Your task to perform on an android device: move an email to a new category in the gmail app Image 0: 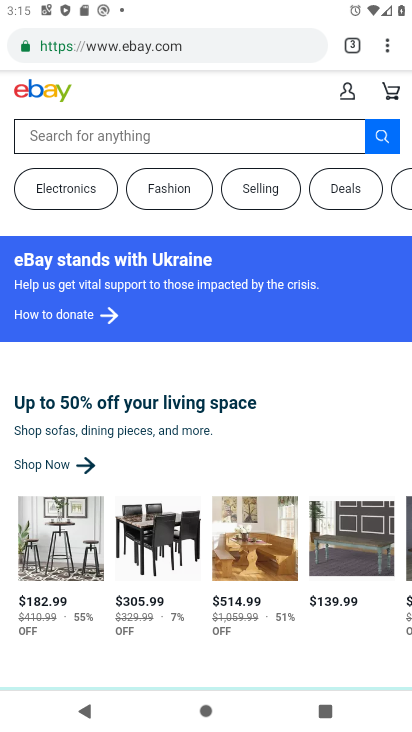
Step 0: press home button
Your task to perform on an android device: move an email to a new category in the gmail app Image 1: 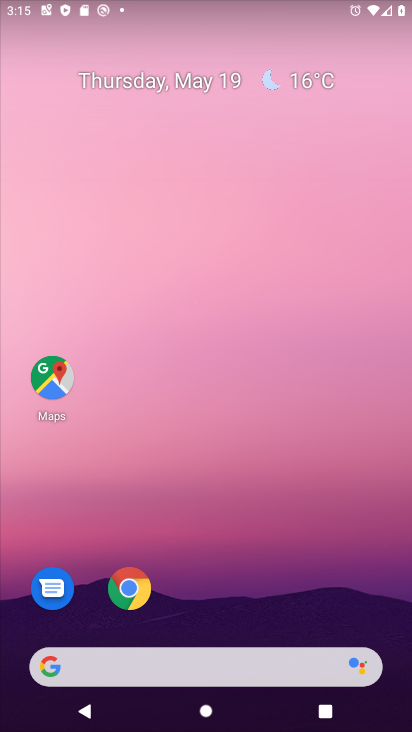
Step 1: drag from (241, 551) to (254, 114)
Your task to perform on an android device: move an email to a new category in the gmail app Image 2: 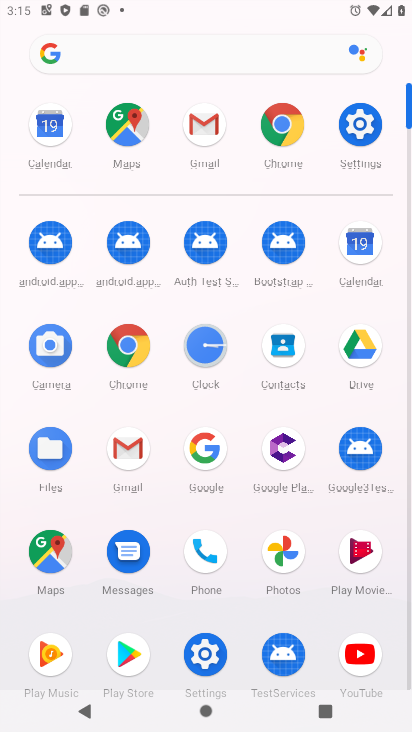
Step 2: click (211, 134)
Your task to perform on an android device: move an email to a new category in the gmail app Image 3: 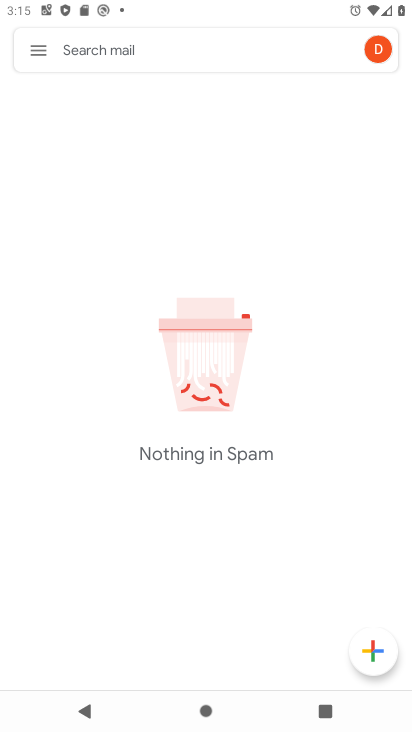
Step 3: click (35, 49)
Your task to perform on an android device: move an email to a new category in the gmail app Image 4: 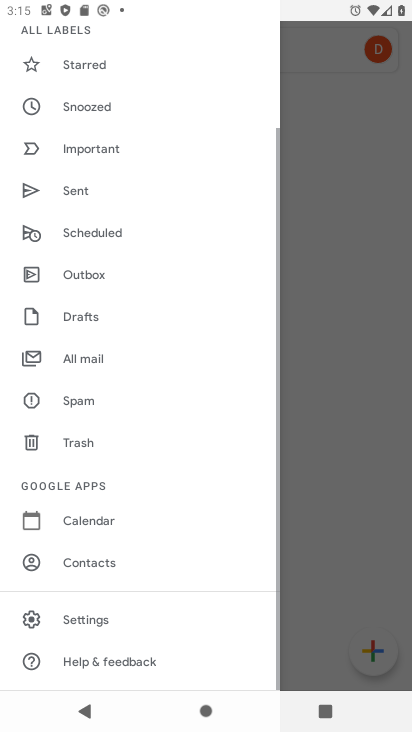
Step 4: click (104, 612)
Your task to perform on an android device: move an email to a new category in the gmail app Image 5: 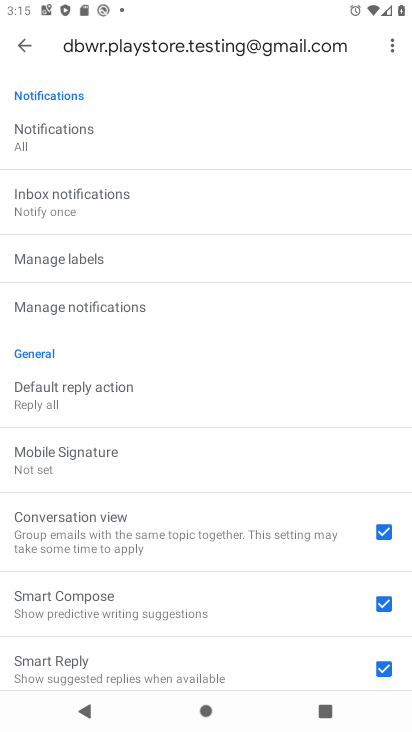
Step 5: click (14, 32)
Your task to perform on an android device: move an email to a new category in the gmail app Image 6: 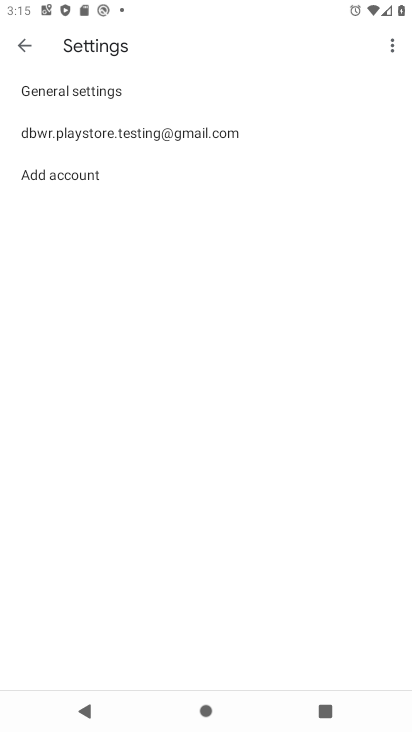
Step 6: click (25, 53)
Your task to perform on an android device: move an email to a new category in the gmail app Image 7: 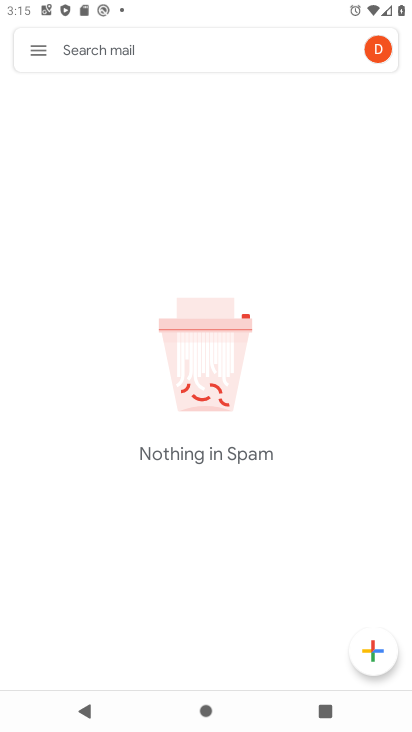
Step 7: click (42, 49)
Your task to perform on an android device: move an email to a new category in the gmail app Image 8: 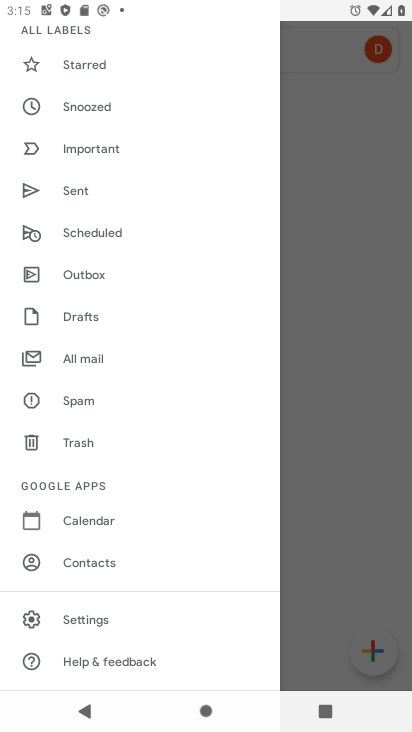
Step 8: click (72, 359)
Your task to perform on an android device: move an email to a new category in the gmail app Image 9: 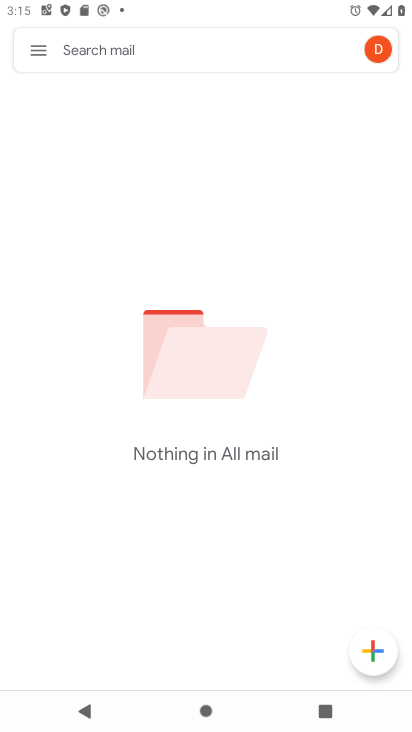
Step 9: task complete